Your task to perform on an android device: move a message to another label in the gmail app Image 0: 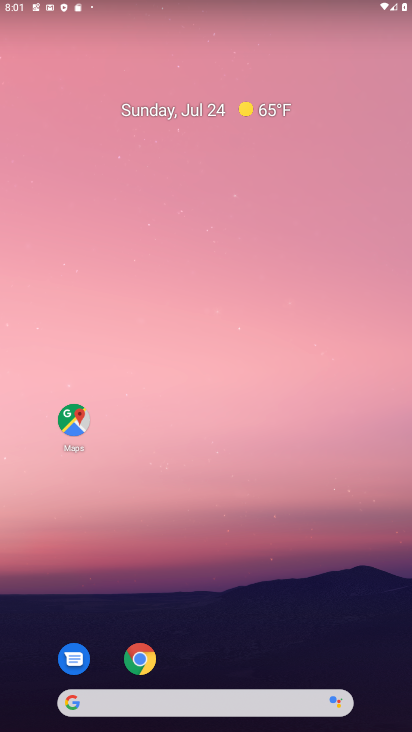
Step 0: drag from (289, 676) to (271, 11)
Your task to perform on an android device: move a message to another label in the gmail app Image 1: 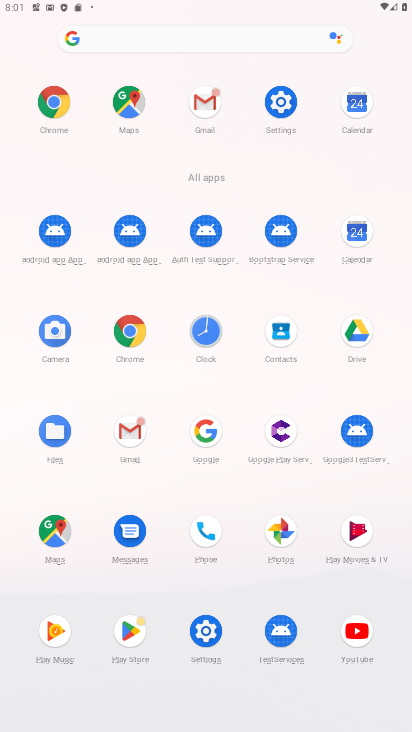
Step 1: click (201, 110)
Your task to perform on an android device: move a message to another label in the gmail app Image 2: 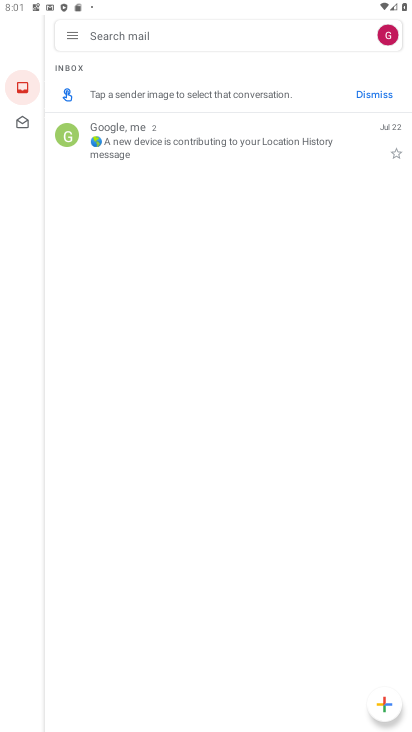
Step 2: click (68, 28)
Your task to perform on an android device: move a message to another label in the gmail app Image 3: 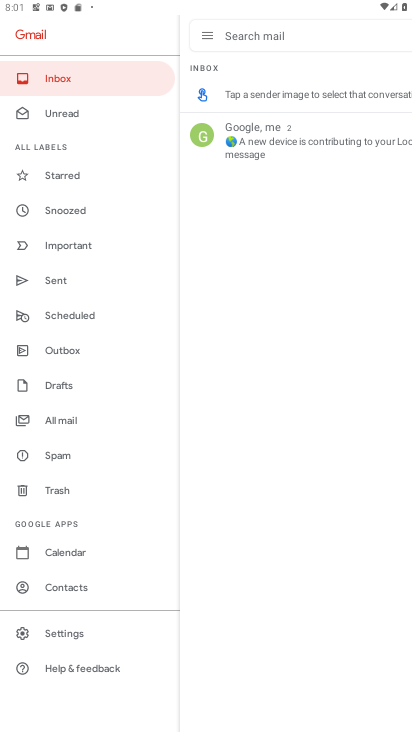
Step 3: click (61, 426)
Your task to perform on an android device: move a message to another label in the gmail app Image 4: 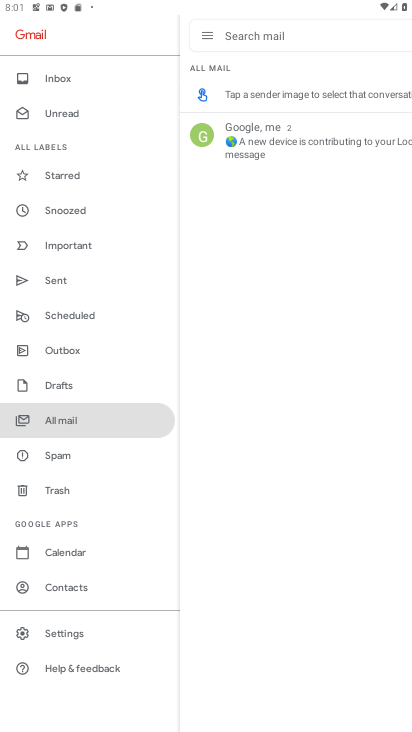
Step 4: click (94, 414)
Your task to perform on an android device: move a message to another label in the gmail app Image 5: 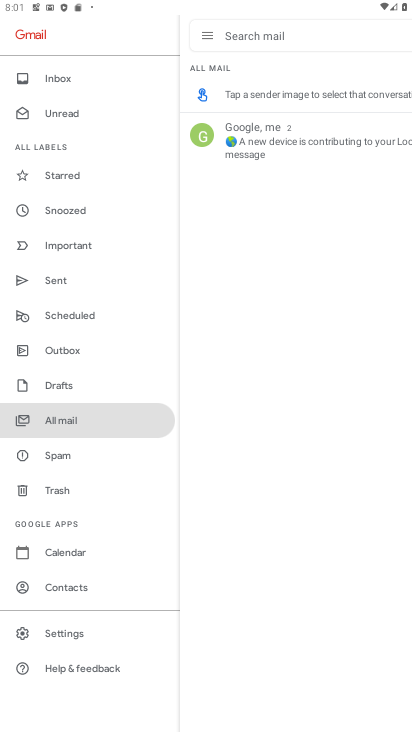
Step 5: click (212, 32)
Your task to perform on an android device: move a message to another label in the gmail app Image 6: 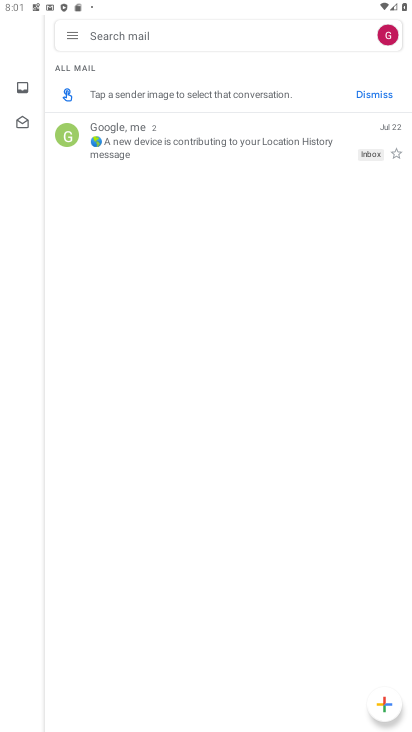
Step 6: click (69, 36)
Your task to perform on an android device: move a message to another label in the gmail app Image 7: 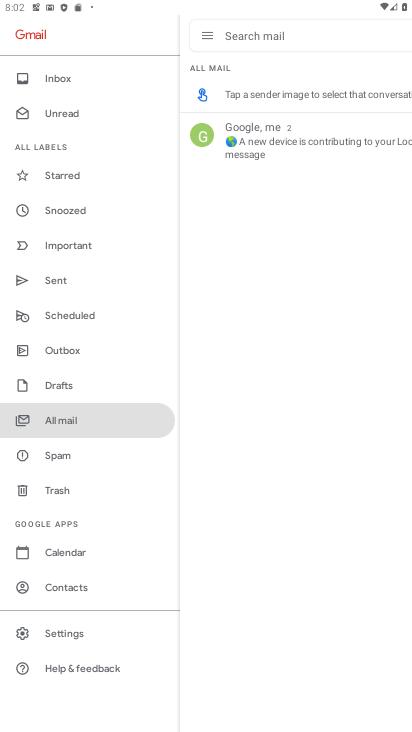
Step 7: click (58, 420)
Your task to perform on an android device: move a message to another label in the gmail app Image 8: 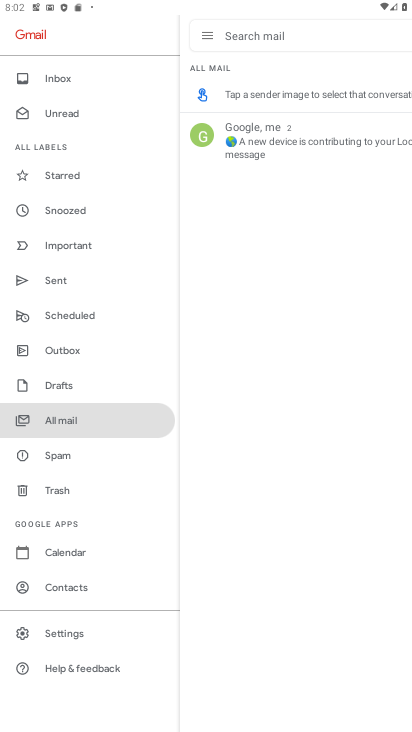
Step 8: task complete